Your task to perform on an android device: When is my next meeting? Image 0: 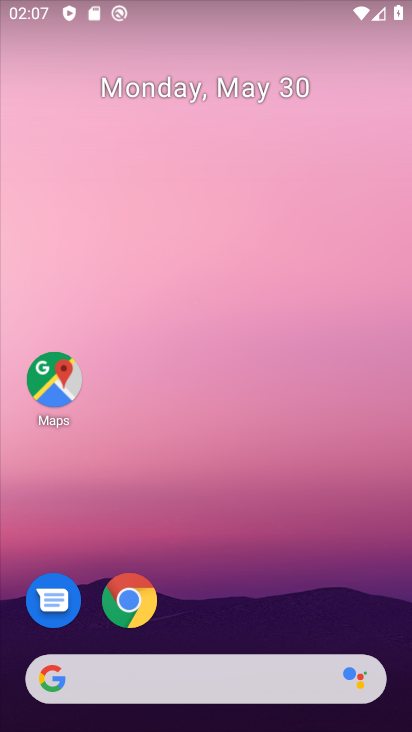
Step 0: click (250, 91)
Your task to perform on an android device: When is my next meeting? Image 1: 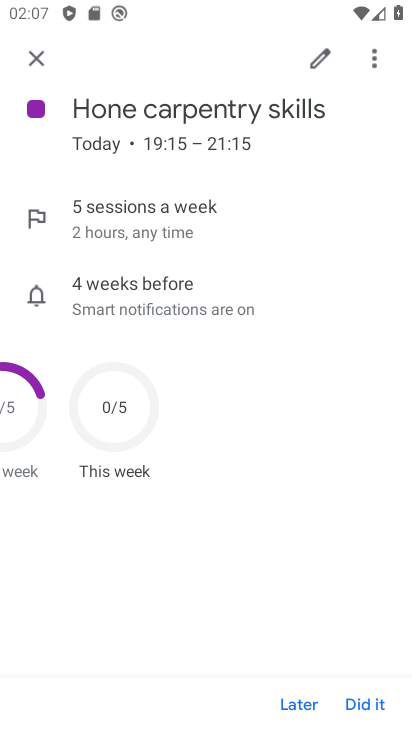
Step 1: click (40, 57)
Your task to perform on an android device: When is my next meeting? Image 2: 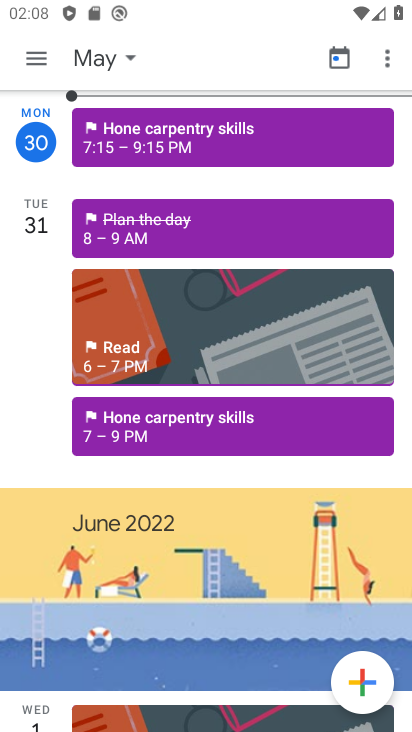
Step 2: click (163, 150)
Your task to perform on an android device: When is my next meeting? Image 3: 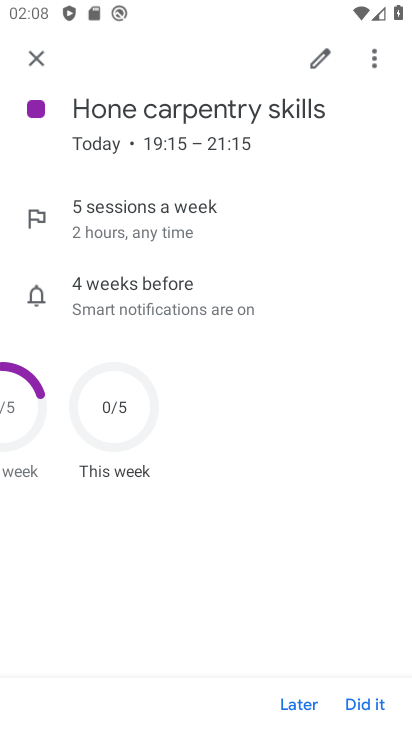
Step 3: task complete